Your task to perform on an android device: Go to notification settings Image 0: 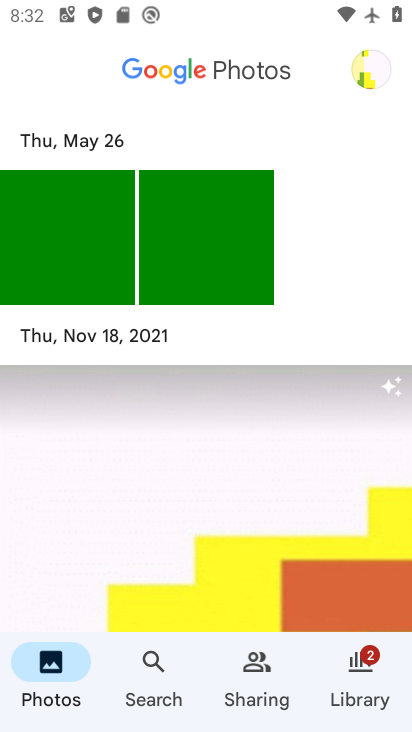
Step 0: press home button
Your task to perform on an android device: Go to notification settings Image 1: 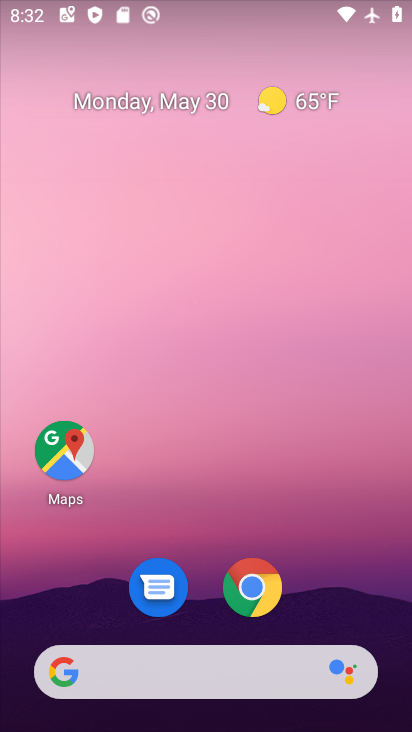
Step 1: drag from (194, 674) to (271, 47)
Your task to perform on an android device: Go to notification settings Image 2: 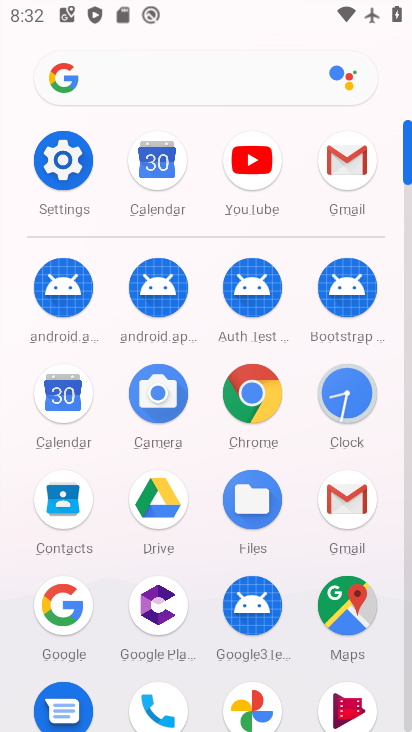
Step 2: click (57, 159)
Your task to perform on an android device: Go to notification settings Image 3: 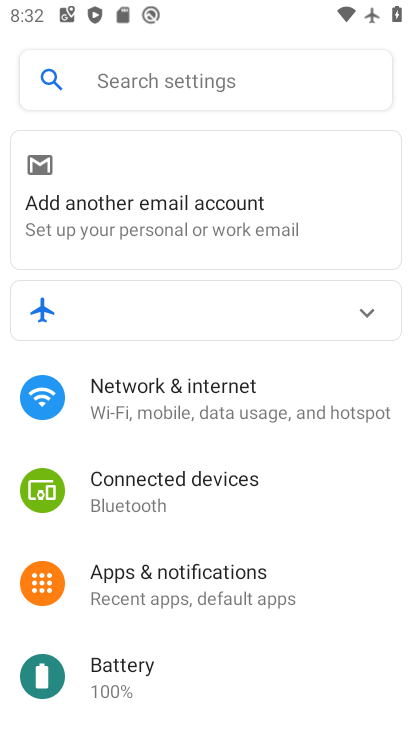
Step 3: click (234, 575)
Your task to perform on an android device: Go to notification settings Image 4: 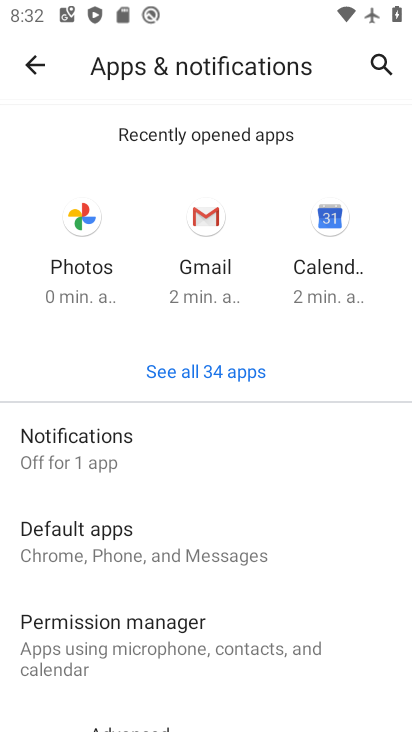
Step 4: click (103, 455)
Your task to perform on an android device: Go to notification settings Image 5: 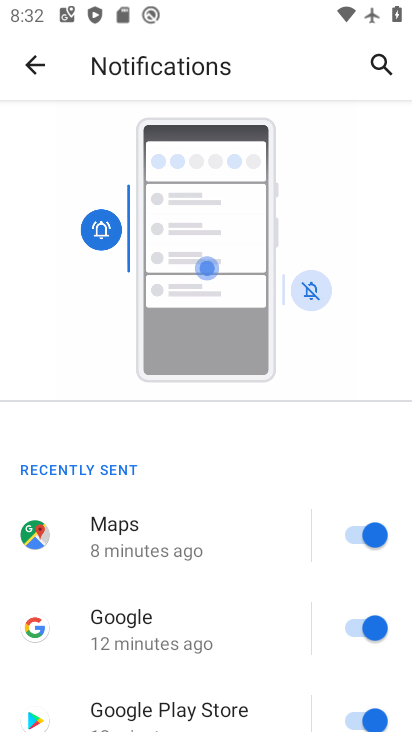
Step 5: task complete